Your task to perform on an android device: Is it going to rain tomorrow? Image 0: 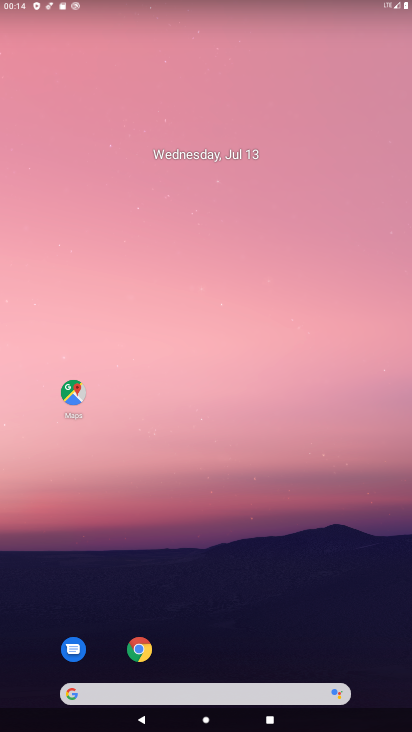
Step 0: click (157, 702)
Your task to perform on an android device: Is it going to rain tomorrow? Image 1: 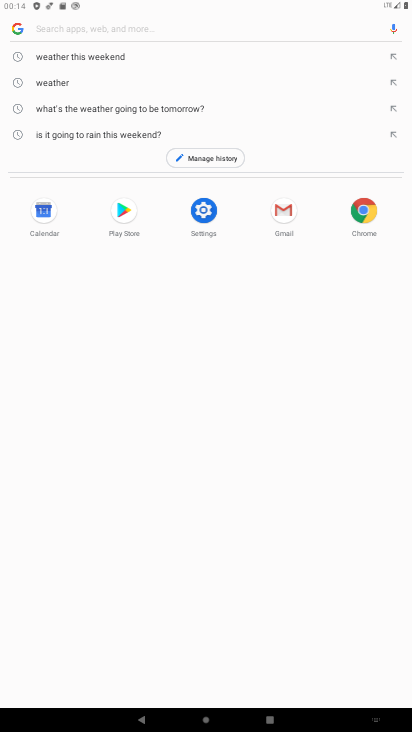
Step 1: click (66, 72)
Your task to perform on an android device: Is it going to rain tomorrow? Image 2: 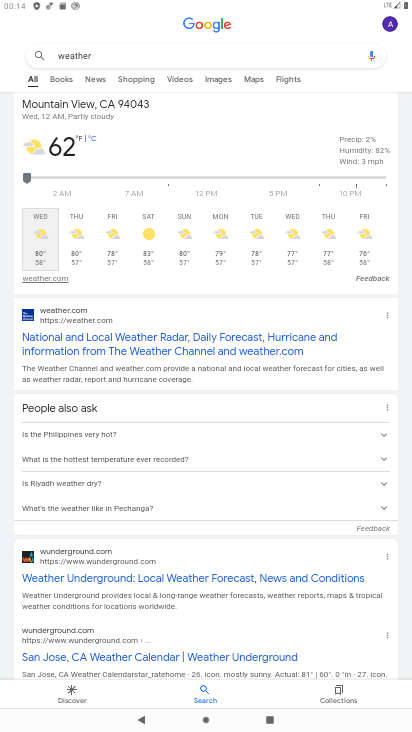
Step 2: click (80, 226)
Your task to perform on an android device: Is it going to rain tomorrow? Image 3: 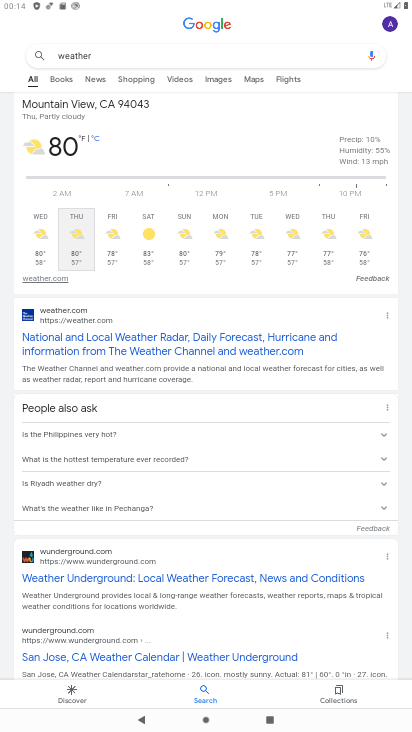
Step 3: task complete